Your task to perform on an android device: remove spam from my inbox in the gmail app Image 0: 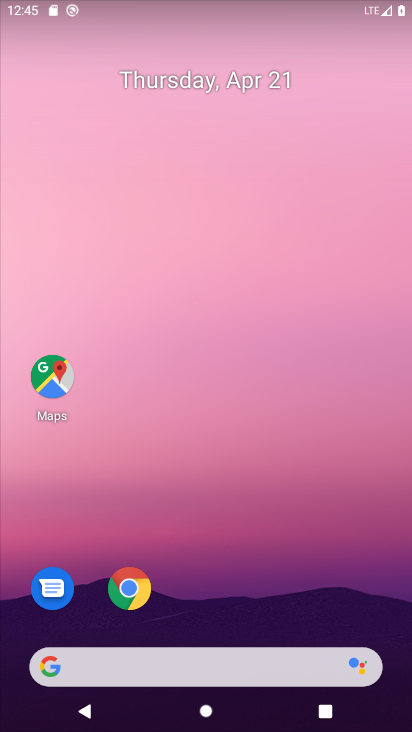
Step 0: click (227, 24)
Your task to perform on an android device: remove spam from my inbox in the gmail app Image 1: 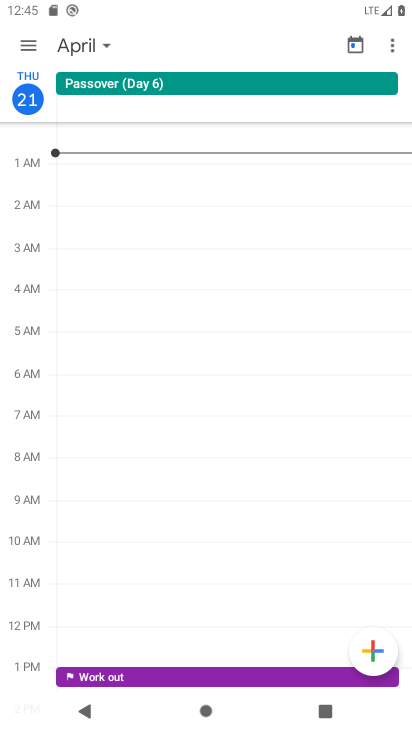
Step 1: press home button
Your task to perform on an android device: remove spam from my inbox in the gmail app Image 2: 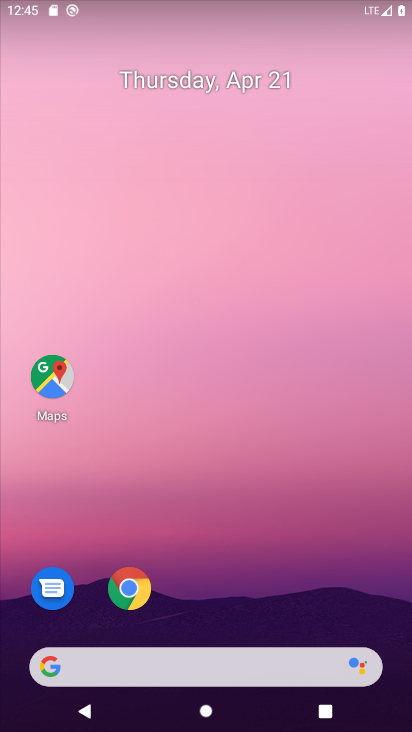
Step 2: drag from (214, 582) to (235, 67)
Your task to perform on an android device: remove spam from my inbox in the gmail app Image 3: 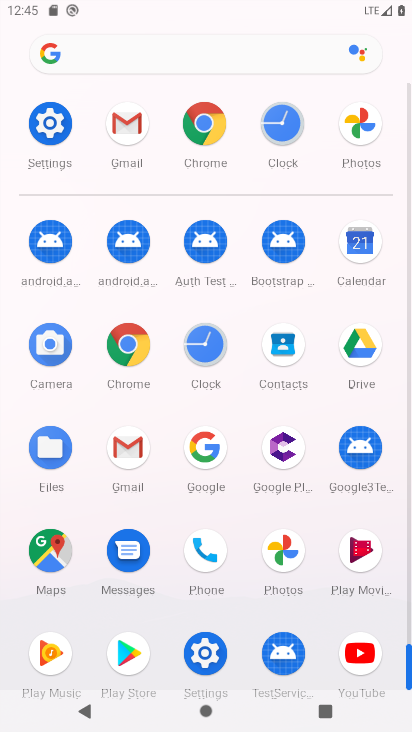
Step 3: click (126, 115)
Your task to perform on an android device: remove spam from my inbox in the gmail app Image 4: 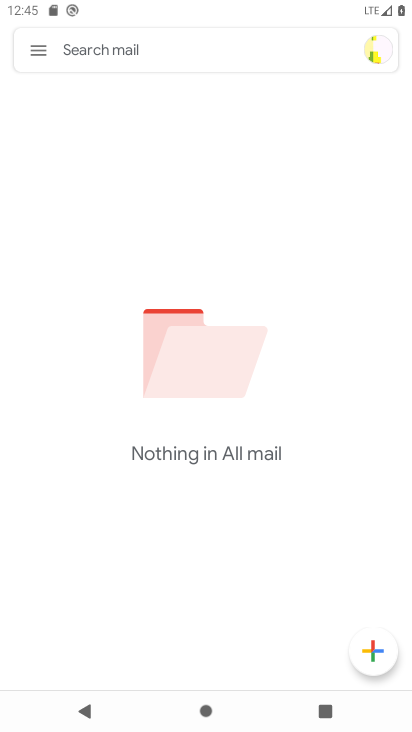
Step 4: click (40, 45)
Your task to perform on an android device: remove spam from my inbox in the gmail app Image 5: 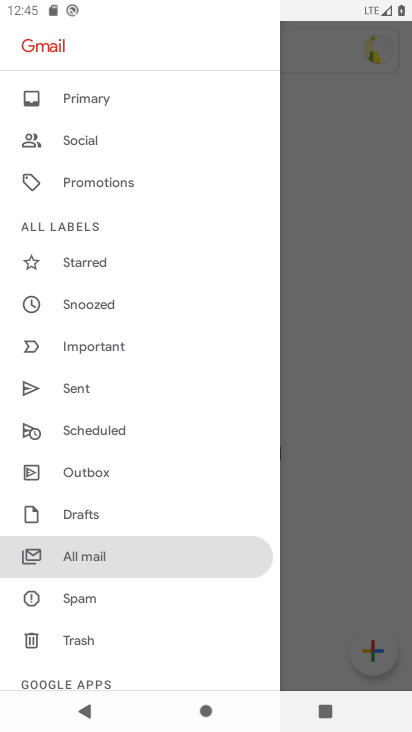
Step 5: click (106, 597)
Your task to perform on an android device: remove spam from my inbox in the gmail app Image 6: 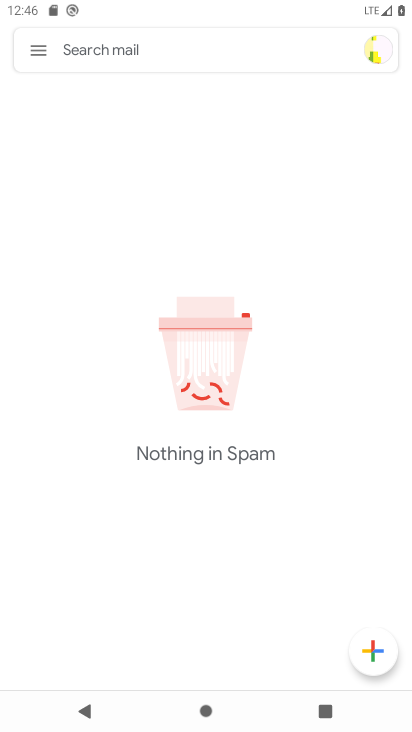
Step 6: task complete